Your task to perform on an android device: Is it going to rain this weekend? Image 0: 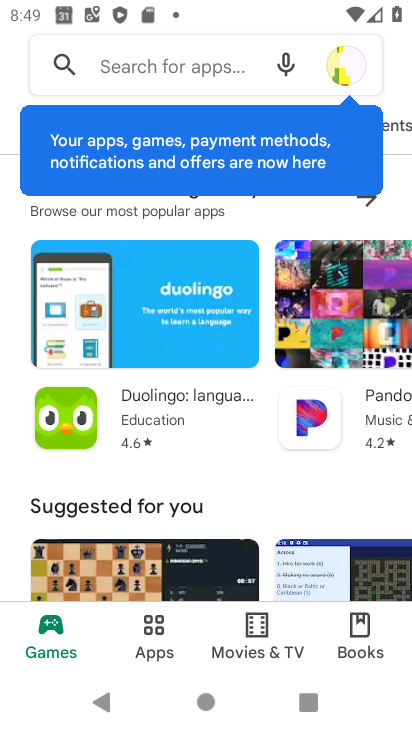
Step 0: press home button
Your task to perform on an android device: Is it going to rain this weekend? Image 1: 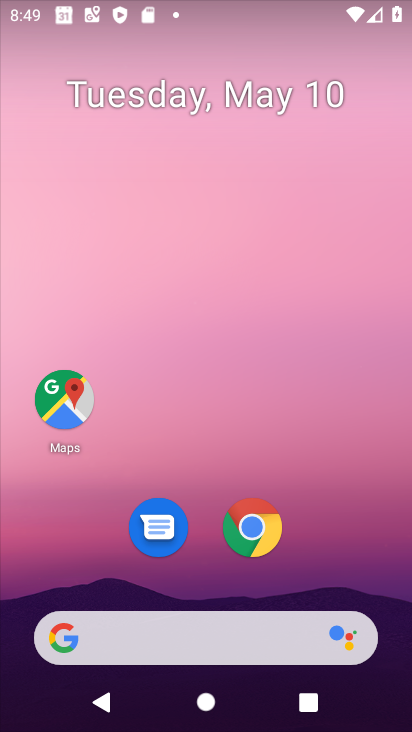
Step 1: drag from (374, 117) to (48, 84)
Your task to perform on an android device: Is it going to rain this weekend? Image 2: 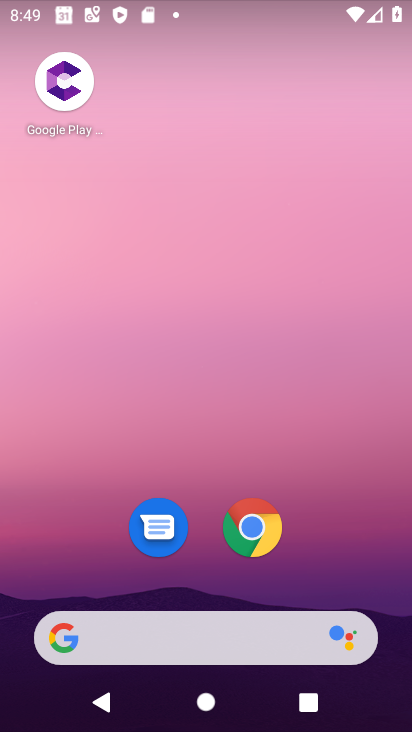
Step 2: drag from (166, 611) to (265, 77)
Your task to perform on an android device: Is it going to rain this weekend? Image 3: 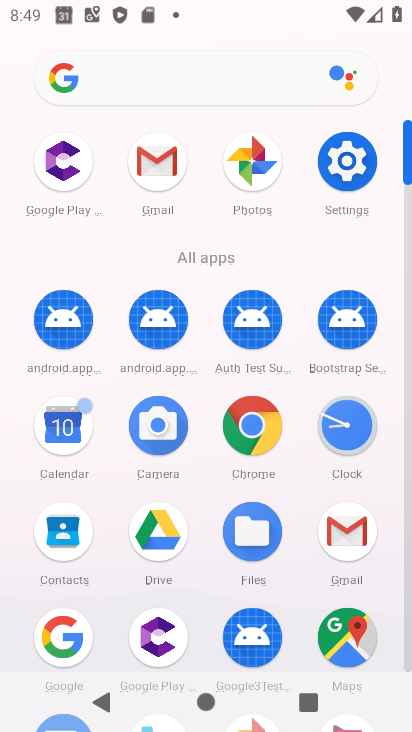
Step 3: click (85, 633)
Your task to perform on an android device: Is it going to rain this weekend? Image 4: 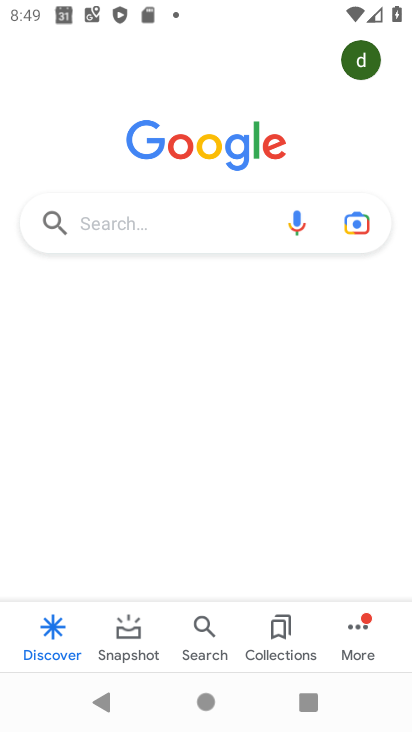
Step 4: click (151, 211)
Your task to perform on an android device: Is it going to rain this weekend? Image 5: 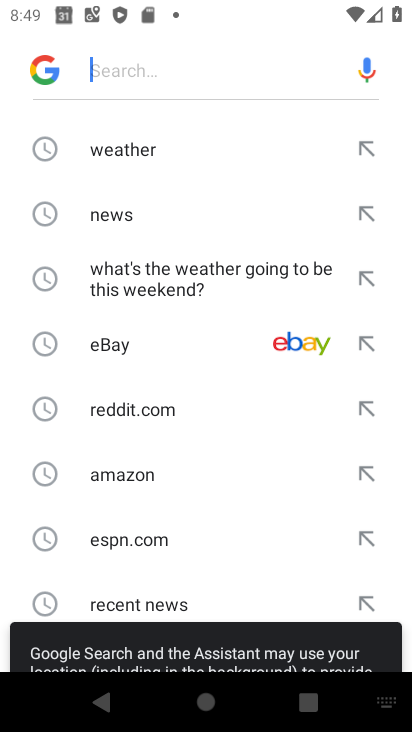
Step 5: click (136, 149)
Your task to perform on an android device: Is it going to rain this weekend? Image 6: 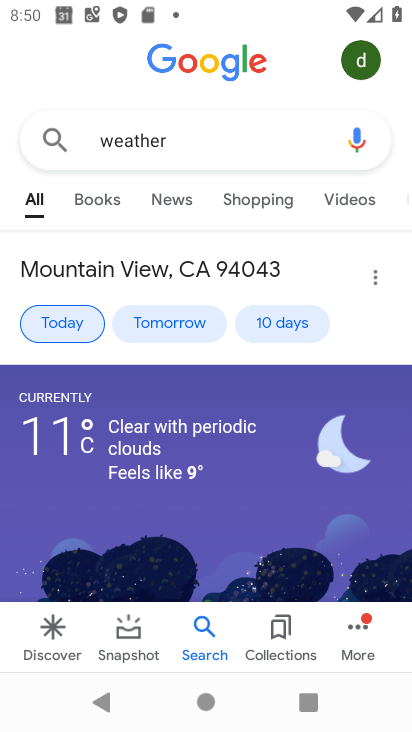
Step 6: drag from (154, 569) to (265, 267)
Your task to perform on an android device: Is it going to rain this weekend? Image 7: 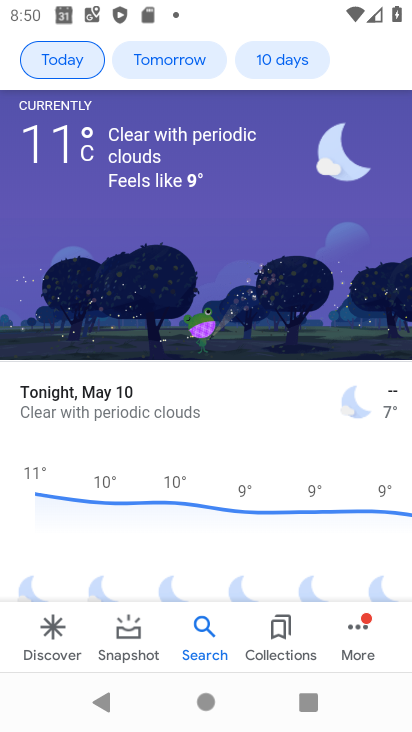
Step 7: drag from (172, 589) to (281, 270)
Your task to perform on an android device: Is it going to rain this weekend? Image 8: 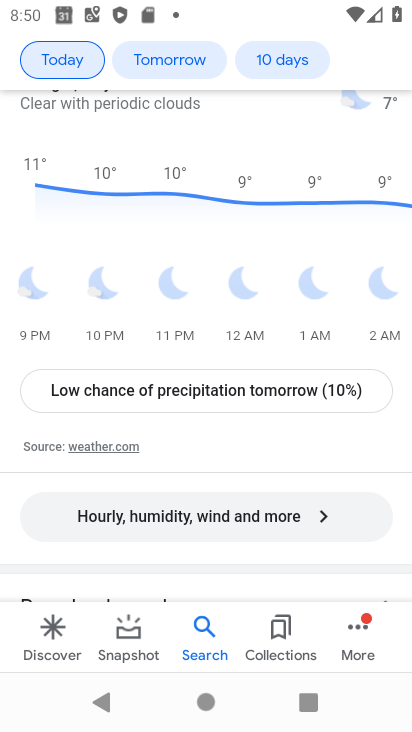
Step 8: drag from (181, 557) to (236, 305)
Your task to perform on an android device: Is it going to rain this weekend? Image 9: 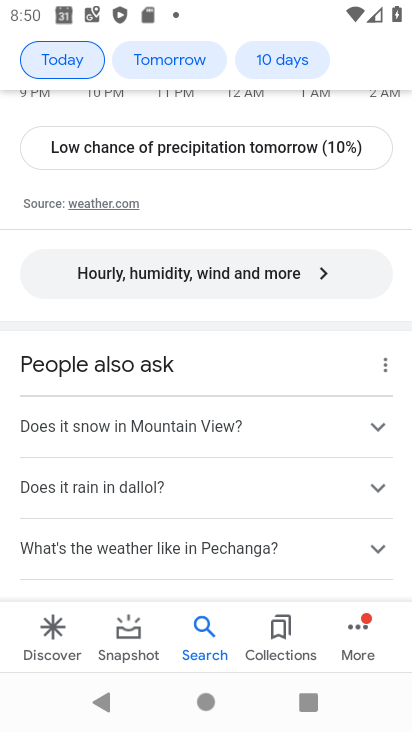
Step 9: click (200, 276)
Your task to perform on an android device: Is it going to rain this weekend? Image 10: 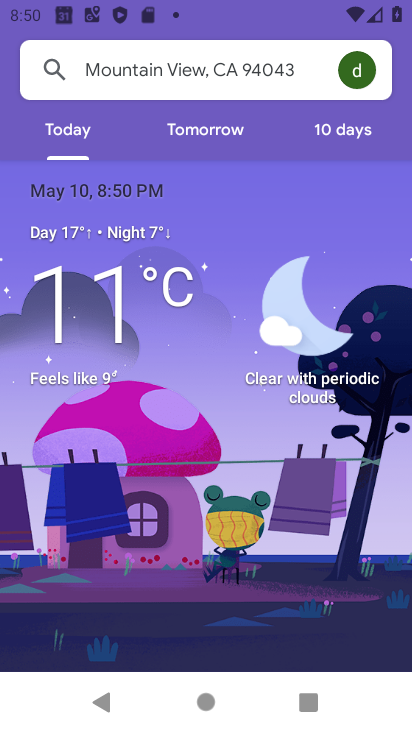
Step 10: click (376, 138)
Your task to perform on an android device: Is it going to rain this weekend? Image 11: 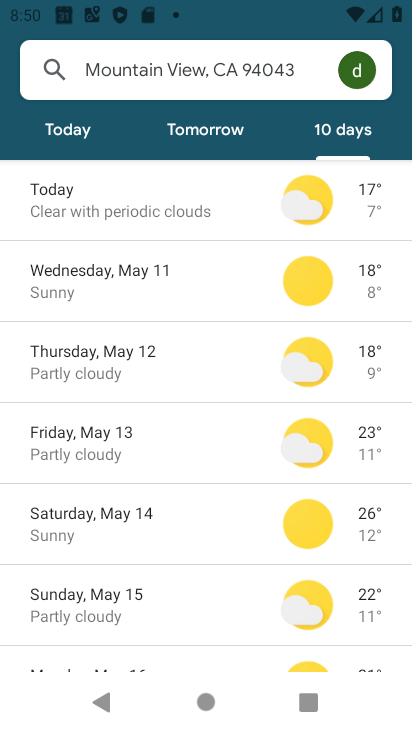
Step 11: task complete